Your task to perform on an android device: open a new tab in the chrome app Image 0: 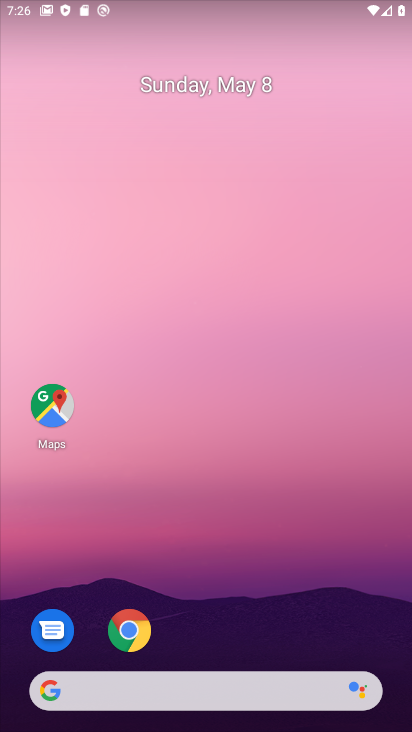
Step 0: drag from (231, 621) to (226, 78)
Your task to perform on an android device: open a new tab in the chrome app Image 1: 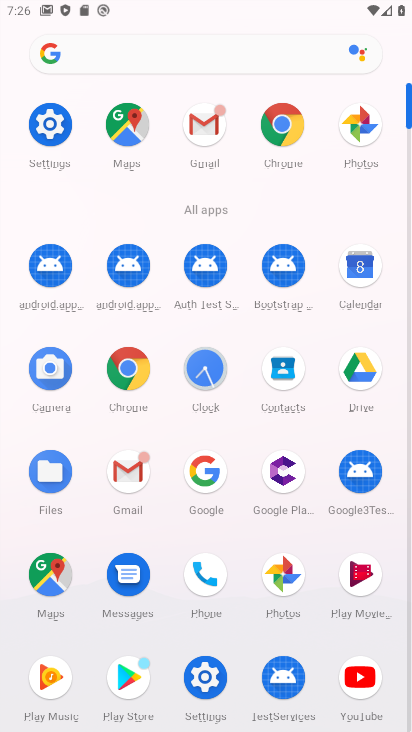
Step 1: click (270, 152)
Your task to perform on an android device: open a new tab in the chrome app Image 2: 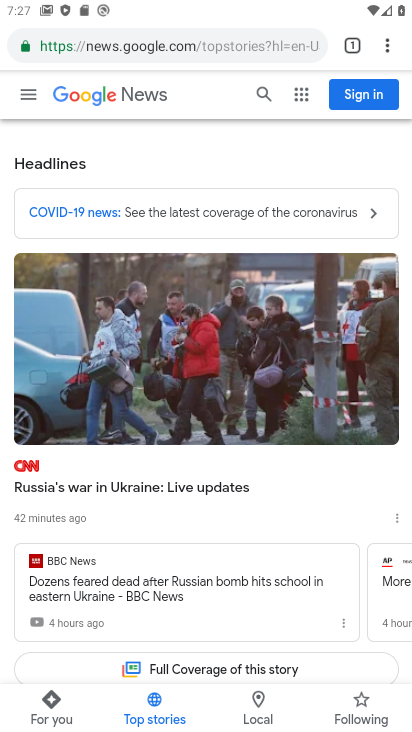
Step 2: click (352, 45)
Your task to perform on an android device: open a new tab in the chrome app Image 3: 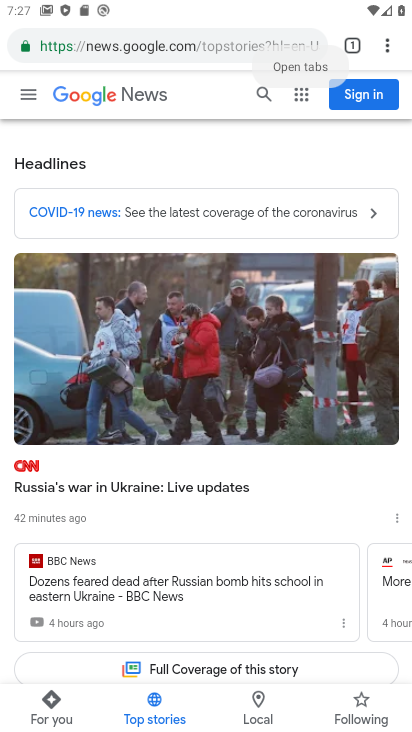
Step 3: click (352, 45)
Your task to perform on an android device: open a new tab in the chrome app Image 4: 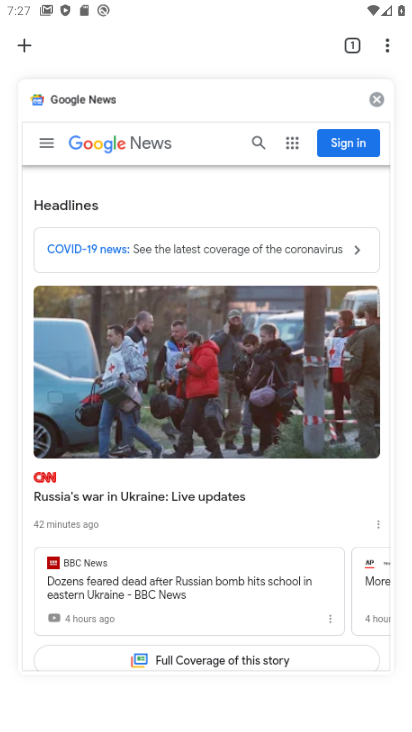
Step 4: click (24, 57)
Your task to perform on an android device: open a new tab in the chrome app Image 5: 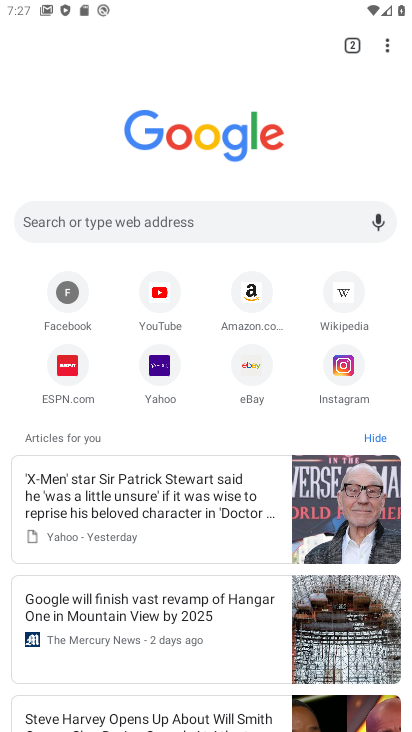
Step 5: task complete